Your task to perform on an android device: Open Reddit.com Image 0: 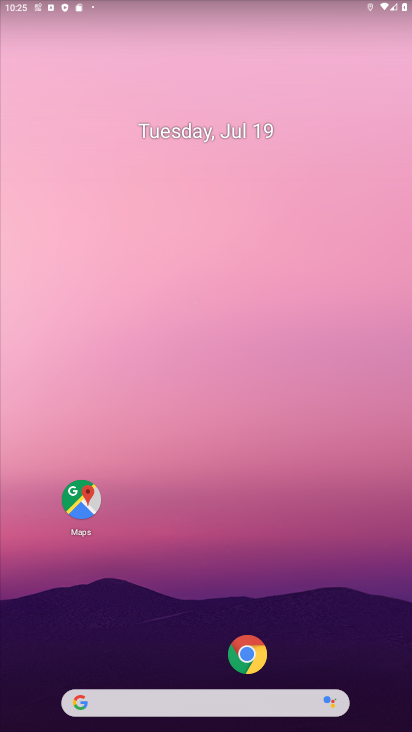
Step 0: drag from (144, 652) to (366, 114)
Your task to perform on an android device: Open Reddit.com Image 1: 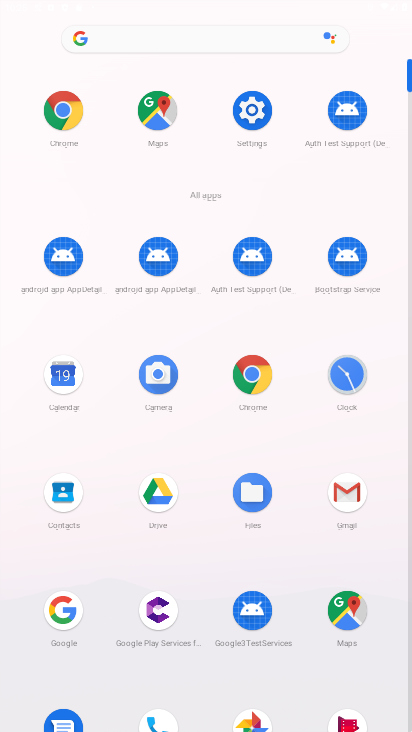
Step 1: click (55, 120)
Your task to perform on an android device: Open Reddit.com Image 2: 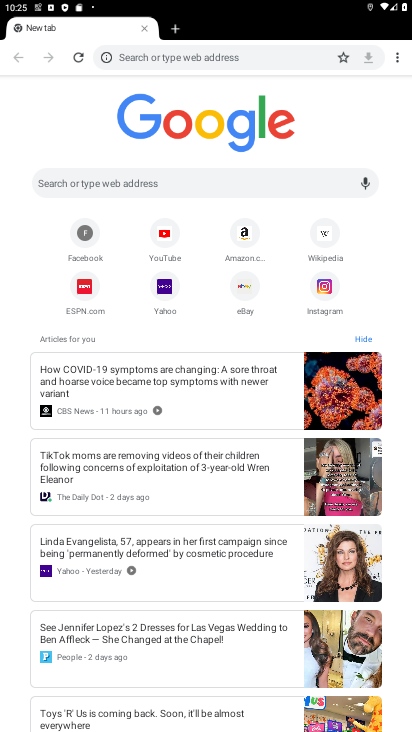
Step 2: click (208, 68)
Your task to perform on an android device: Open Reddit.com Image 3: 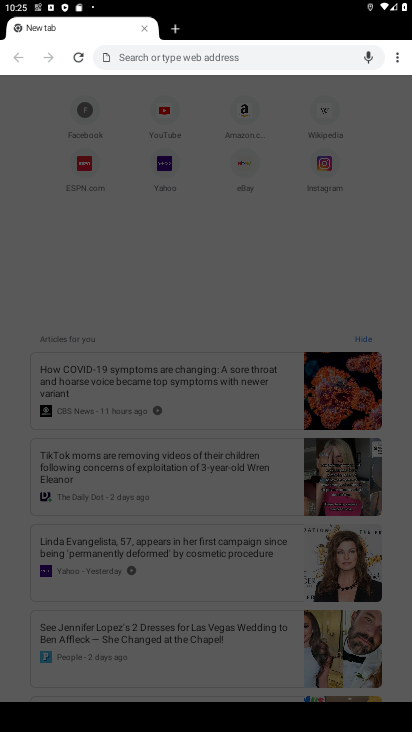
Step 3: type "reddit"
Your task to perform on an android device: Open Reddit.com Image 4: 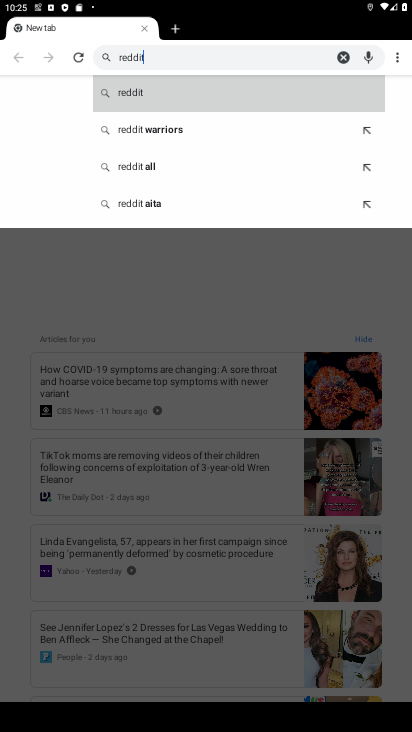
Step 4: click (182, 105)
Your task to perform on an android device: Open Reddit.com Image 5: 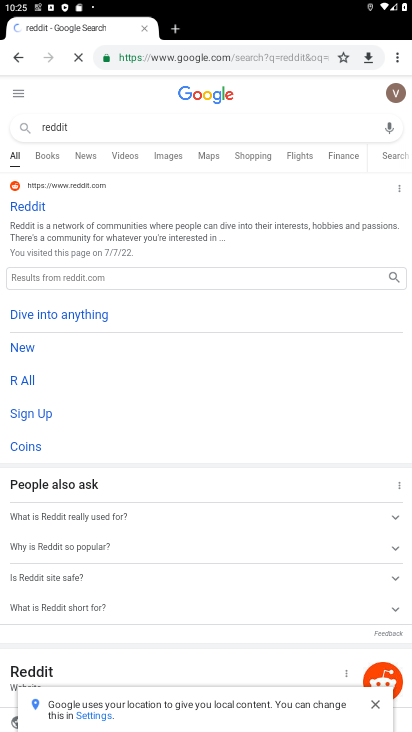
Step 5: click (41, 207)
Your task to perform on an android device: Open Reddit.com Image 6: 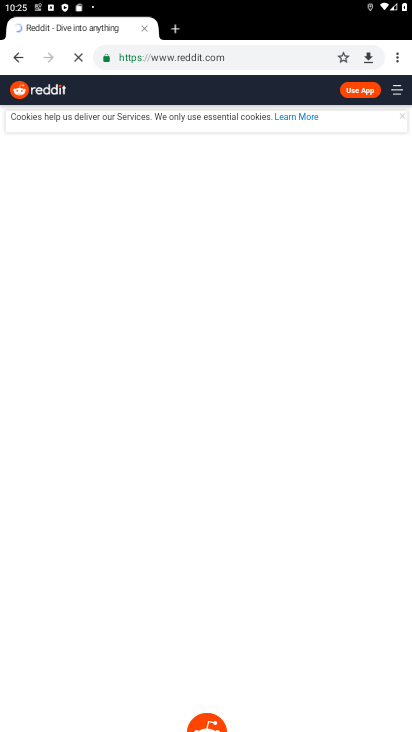
Step 6: task complete